Your task to perform on an android device: check storage Image 0: 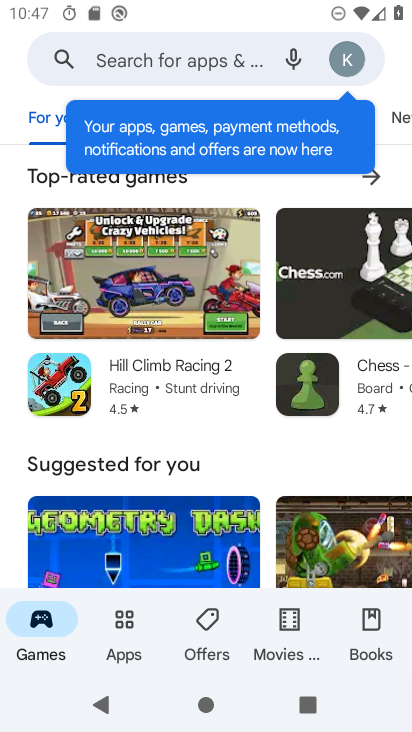
Step 0: press home button
Your task to perform on an android device: check storage Image 1: 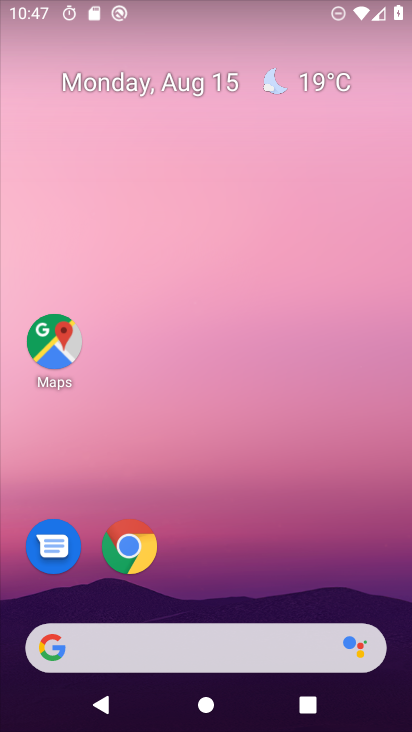
Step 1: drag from (224, 599) to (223, 102)
Your task to perform on an android device: check storage Image 2: 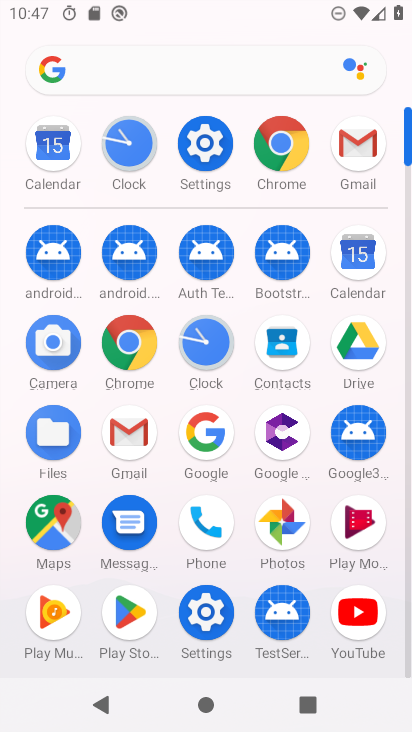
Step 2: click (208, 139)
Your task to perform on an android device: check storage Image 3: 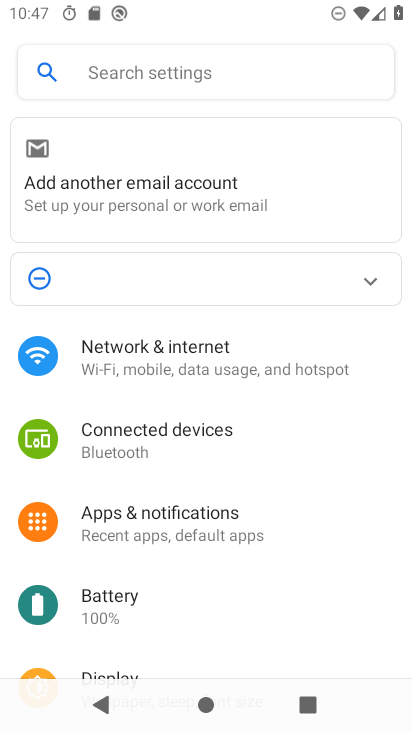
Step 3: drag from (152, 578) to (146, 270)
Your task to perform on an android device: check storage Image 4: 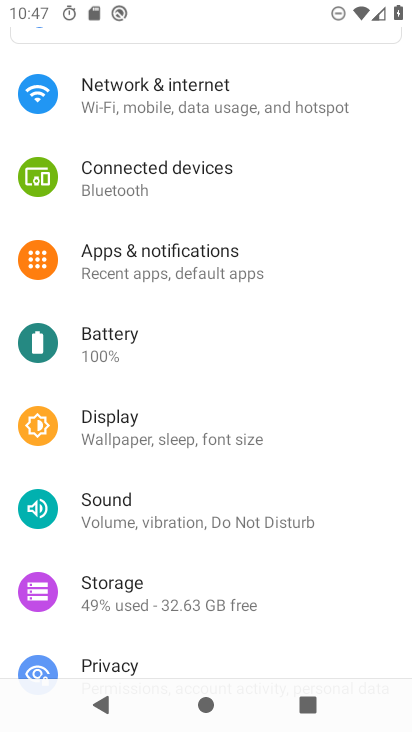
Step 4: click (98, 592)
Your task to perform on an android device: check storage Image 5: 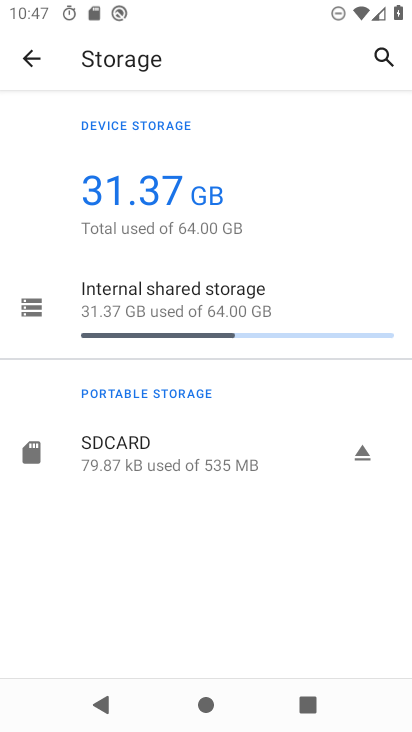
Step 5: task complete